Your task to perform on an android device: See recent photos Image 0: 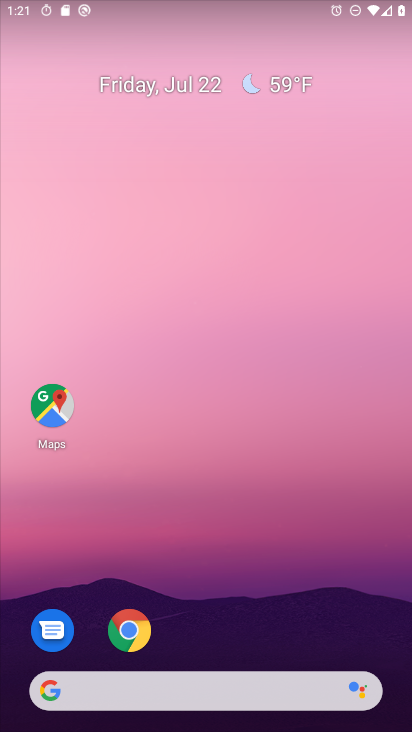
Step 0: press home button
Your task to perform on an android device: See recent photos Image 1: 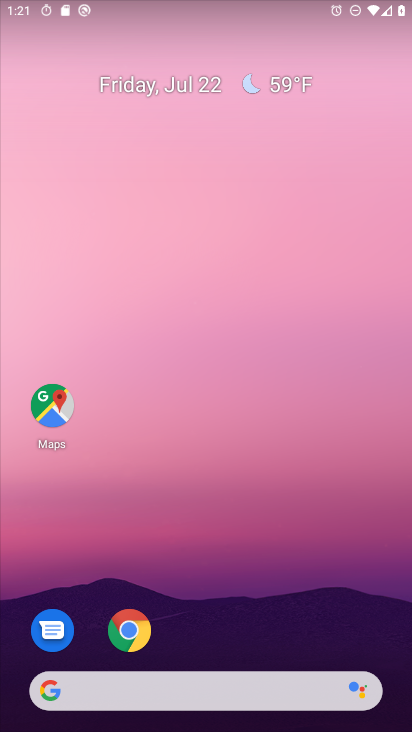
Step 1: drag from (228, 568) to (251, 120)
Your task to perform on an android device: See recent photos Image 2: 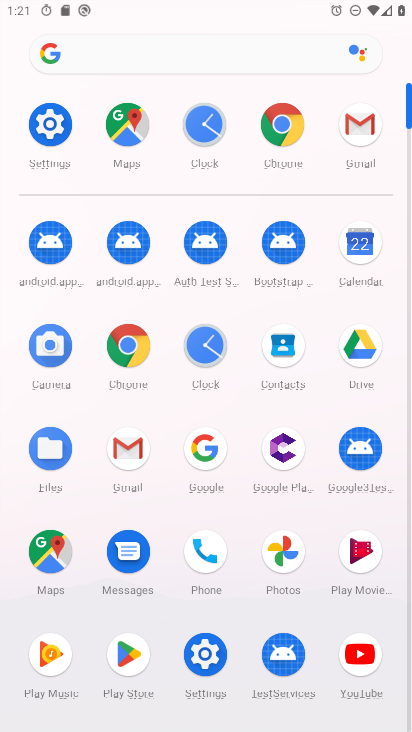
Step 2: click (290, 550)
Your task to perform on an android device: See recent photos Image 3: 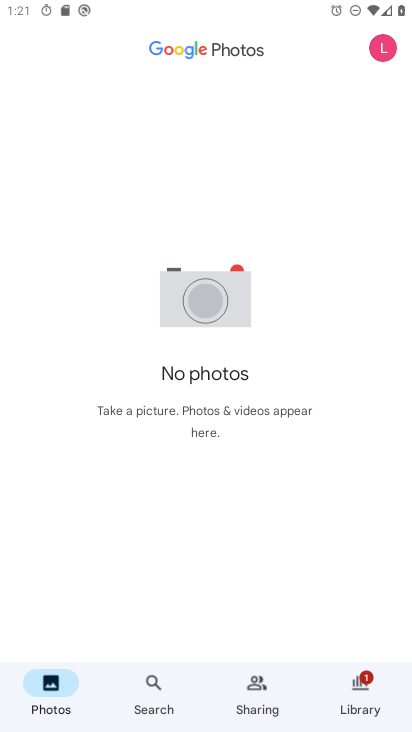
Step 3: click (54, 675)
Your task to perform on an android device: See recent photos Image 4: 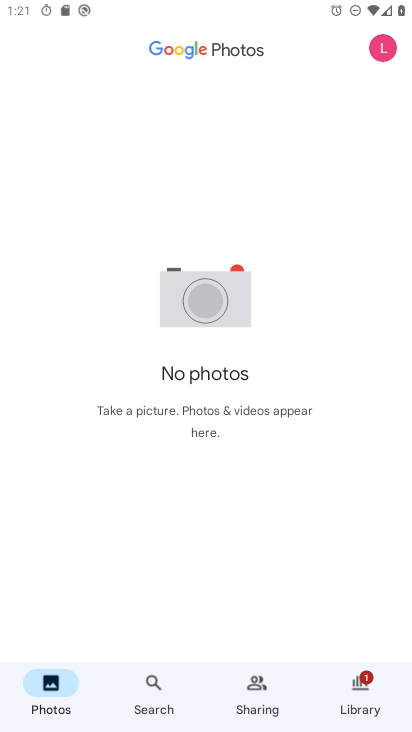
Step 4: task complete